Your task to perform on an android device: Open Reddit.com Image 0: 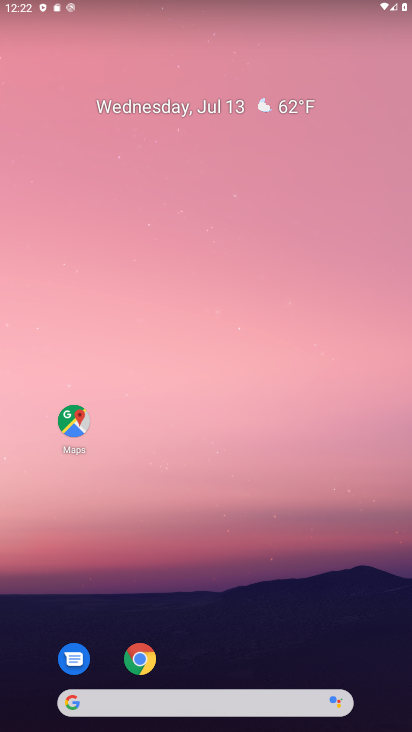
Step 0: drag from (216, 635) to (167, 90)
Your task to perform on an android device: Open Reddit.com Image 1: 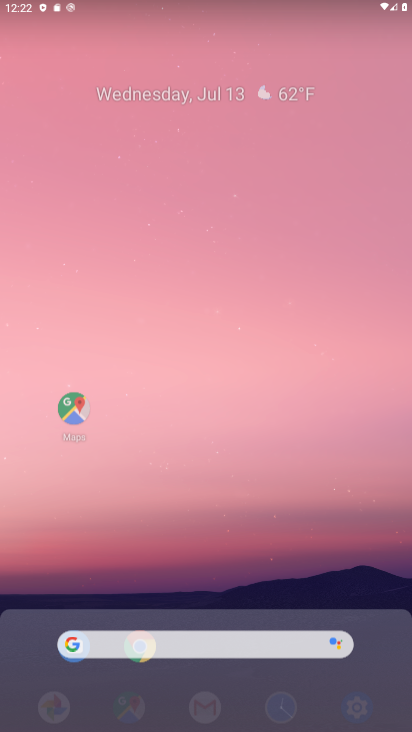
Step 1: drag from (302, 577) to (107, 214)
Your task to perform on an android device: Open Reddit.com Image 2: 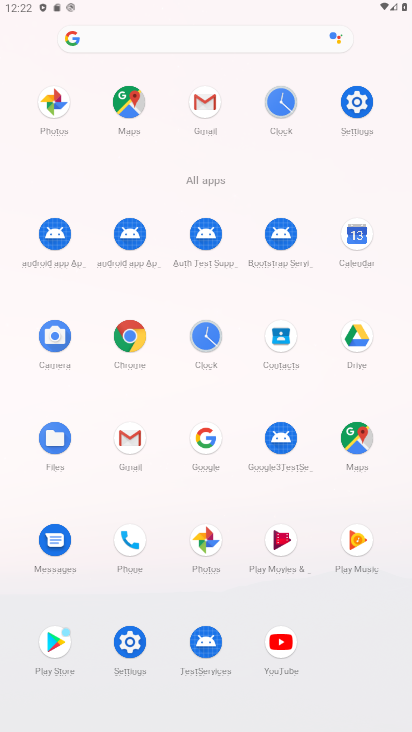
Step 2: click (138, 327)
Your task to perform on an android device: Open Reddit.com Image 3: 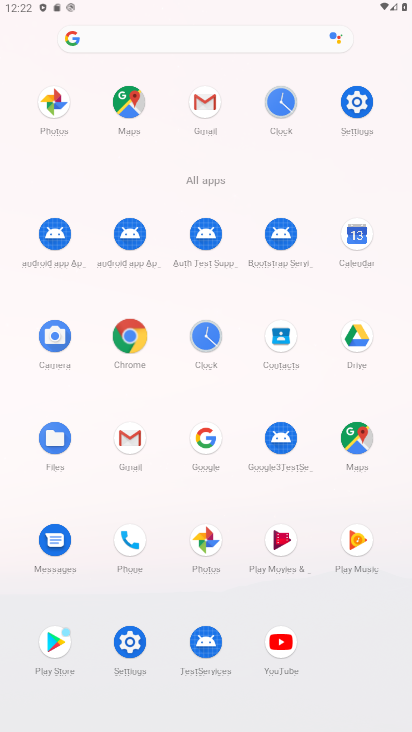
Step 3: click (134, 333)
Your task to perform on an android device: Open Reddit.com Image 4: 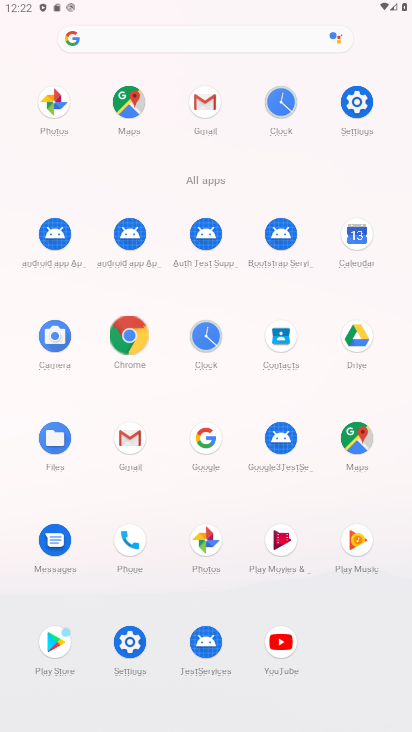
Step 4: click (132, 336)
Your task to perform on an android device: Open Reddit.com Image 5: 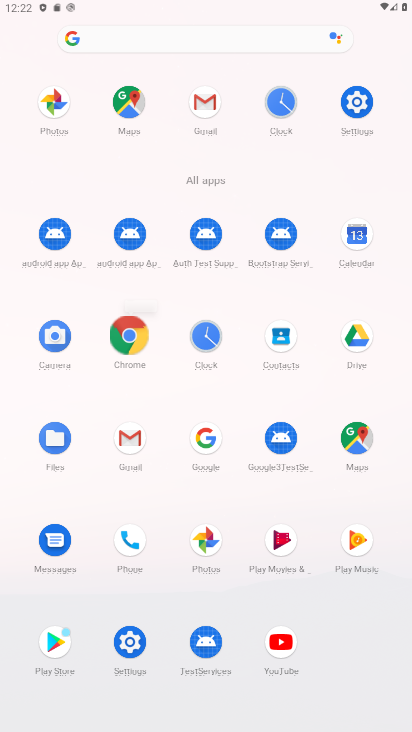
Step 5: click (131, 331)
Your task to perform on an android device: Open Reddit.com Image 6: 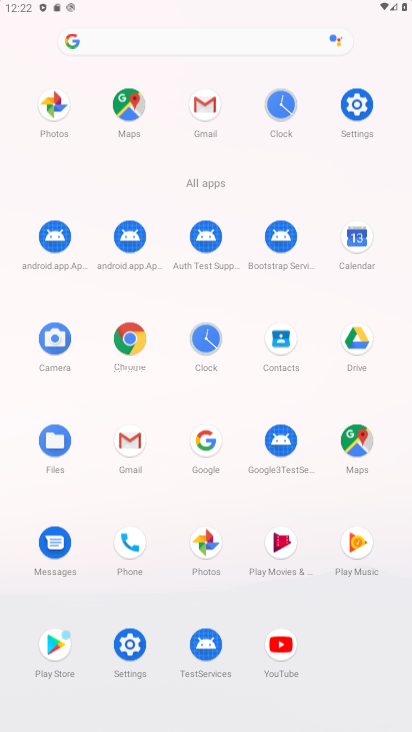
Step 6: click (130, 317)
Your task to perform on an android device: Open Reddit.com Image 7: 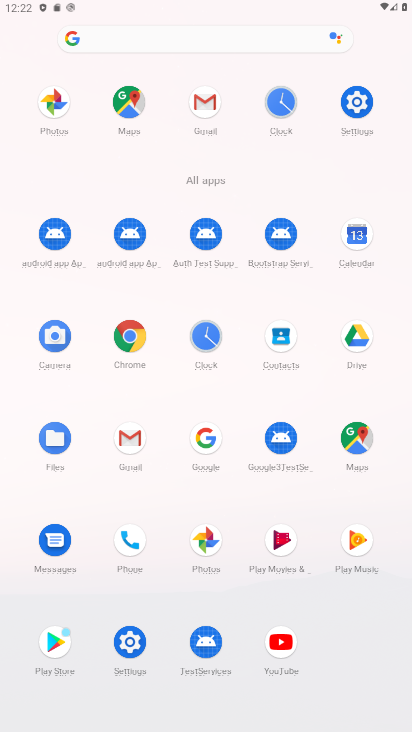
Step 7: click (126, 316)
Your task to perform on an android device: Open Reddit.com Image 8: 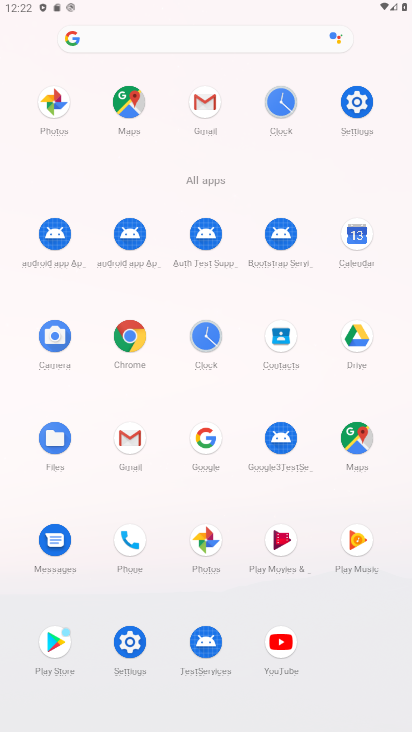
Step 8: click (129, 325)
Your task to perform on an android device: Open Reddit.com Image 9: 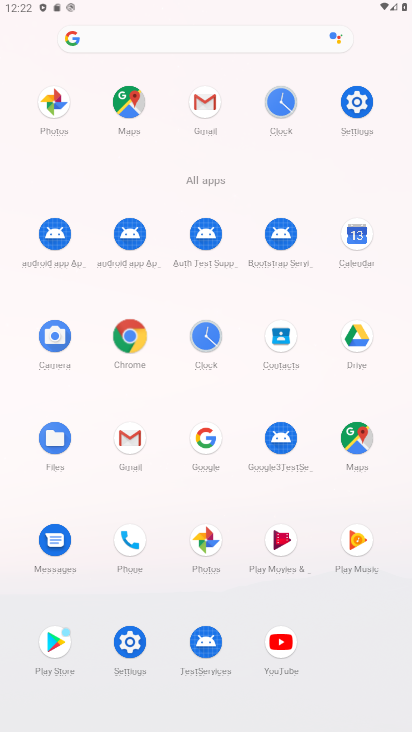
Step 9: click (131, 336)
Your task to perform on an android device: Open Reddit.com Image 10: 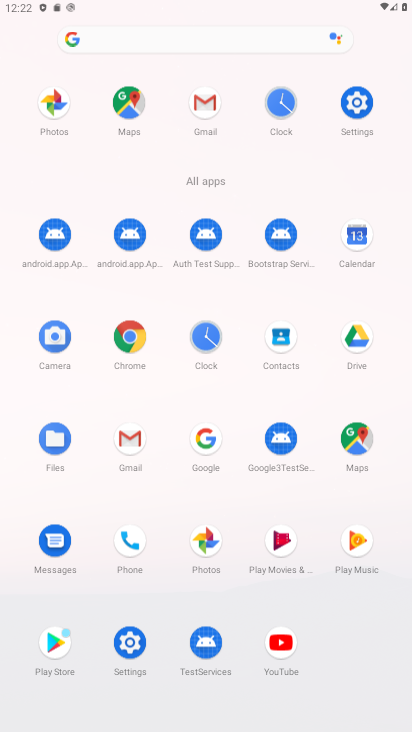
Step 10: click (135, 335)
Your task to perform on an android device: Open Reddit.com Image 11: 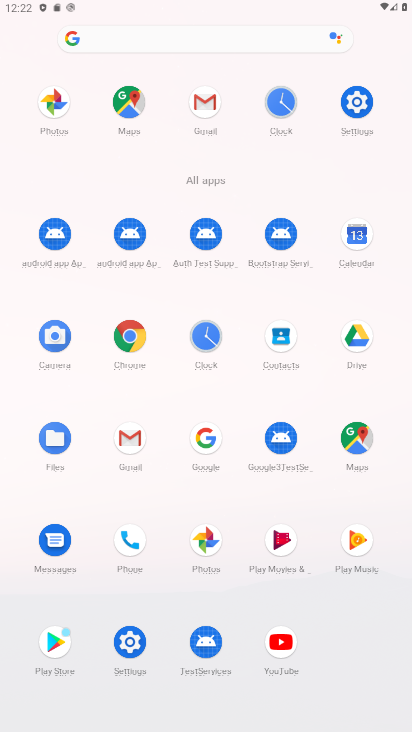
Step 11: click (123, 301)
Your task to perform on an android device: Open Reddit.com Image 12: 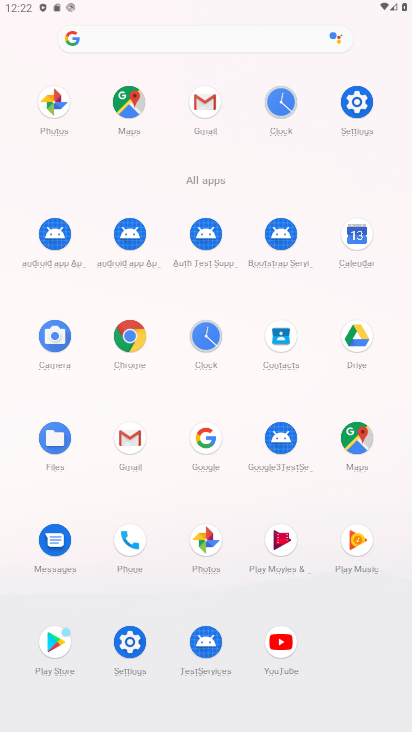
Step 12: click (127, 322)
Your task to perform on an android device: Open Reddit.com Image 13: 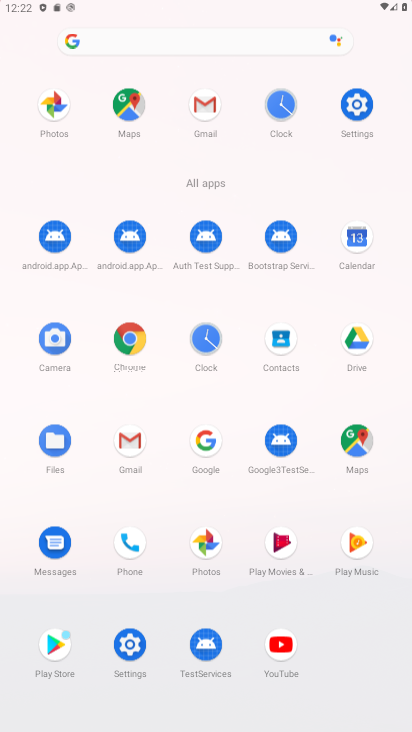
Step 13: click (134, 338)
Your task to perform on an android device: Open Reddit.com Image 14: 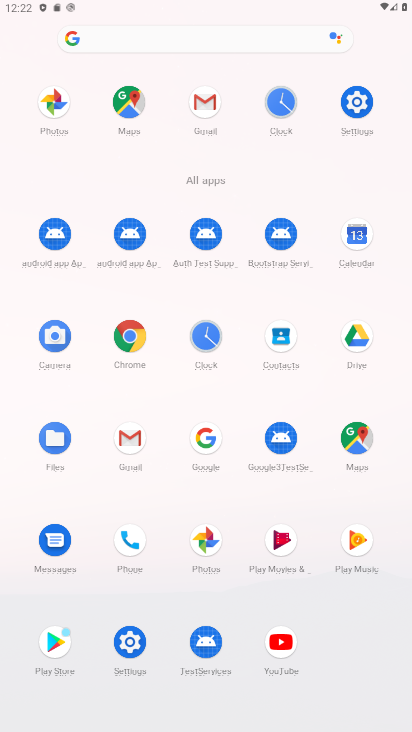
Step 14: click (123, 322)
Your task to perform on an android device: Open Reddit.com Image 15: 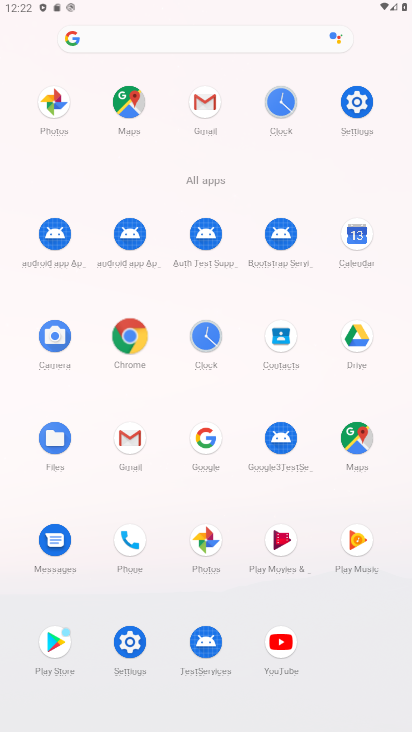
Step 15: click (124, 324)
Your task to perform on an android device: Open Reddit.com Image 16: 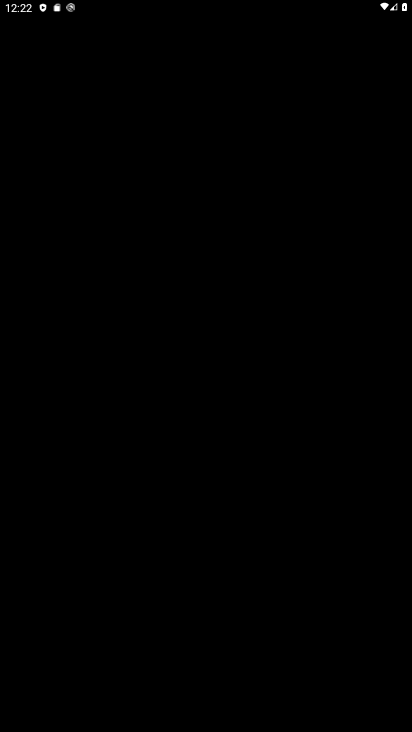
Step 16: click (134, 338)
Your task to perform on an android device: Open Reddit.com Image 17: 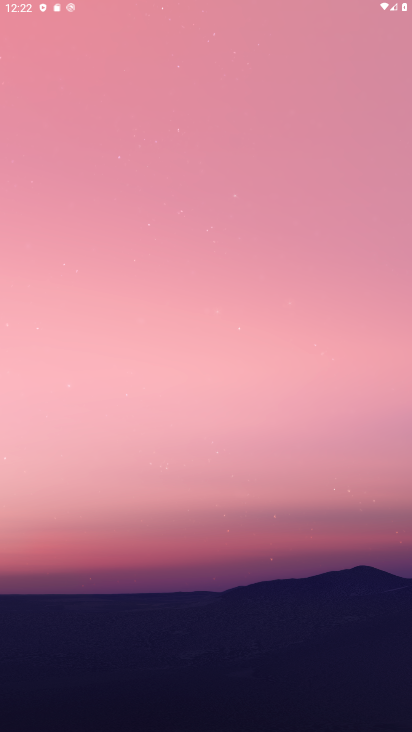
Step 17: click (138, 336)
Your task to perform on an android device: Open Reddit.com Image 18: 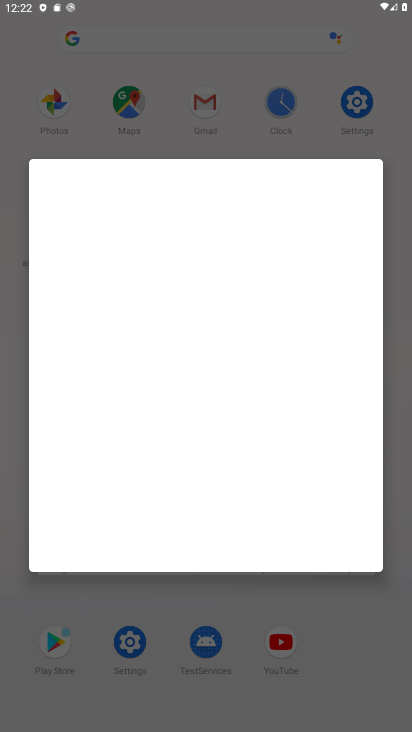
Step 18: click (219, 658)
Your task to perform on an android device: Open Reddit.com Image 19: 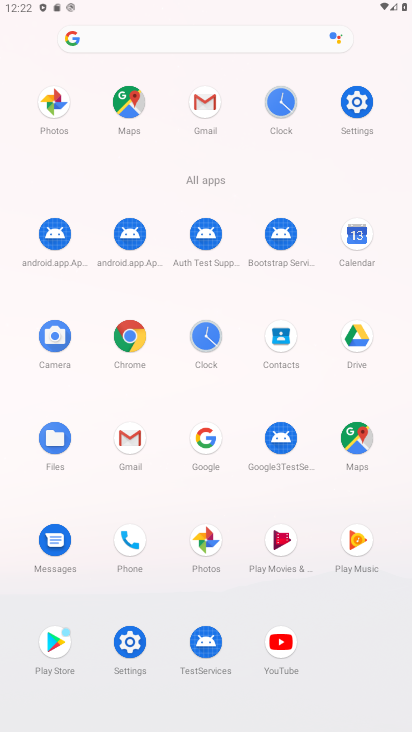
Step 19: click (127, 344)
Your task to perform on an android device: Open Reddit.com Image 20: 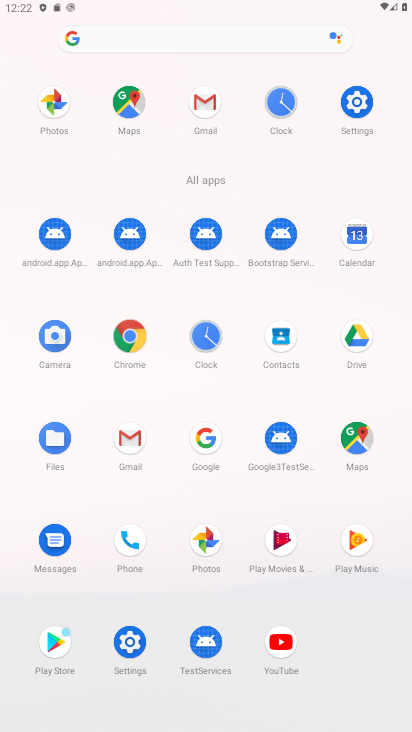
Step 20: click (127, 343)
Your task to perform on an android device: Open Reddit.com Image 21: 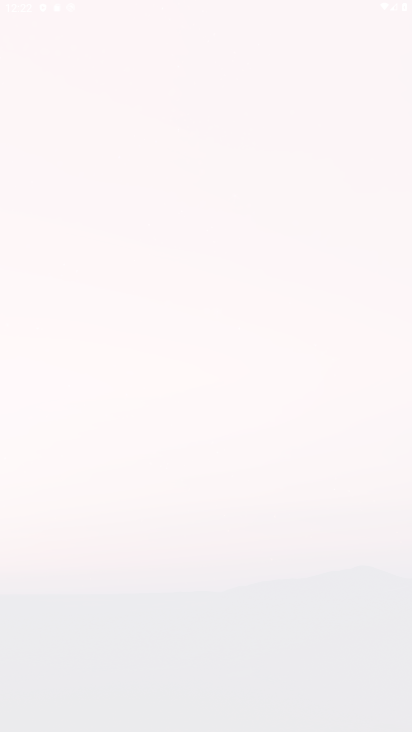
Step 21: click (127, 343)
Your task to perform on an android device: Open Reddit.com Image 22: 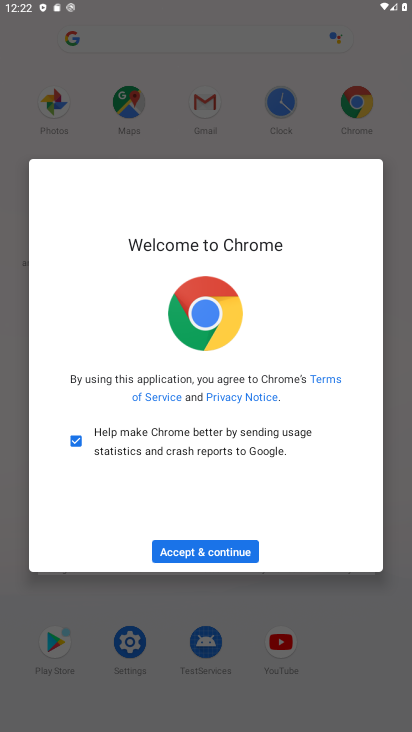
Step 22: click (188, 560)
Your task to perform on an android device: Open Reddit.com Image 23: 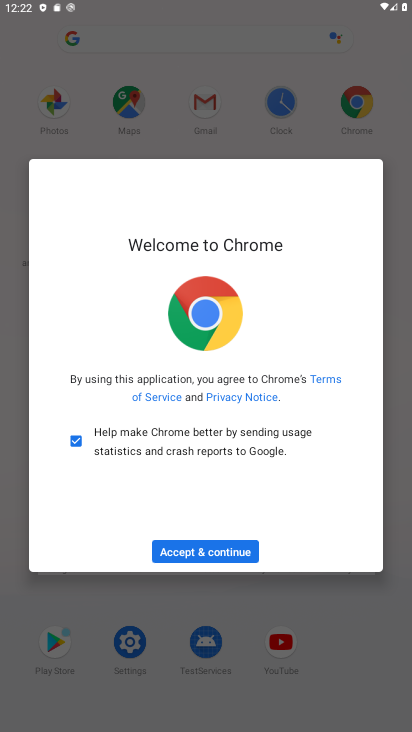
Step 23: click (197, 557)
Your task to perform on an android device: Open Reddit.com Image 24: 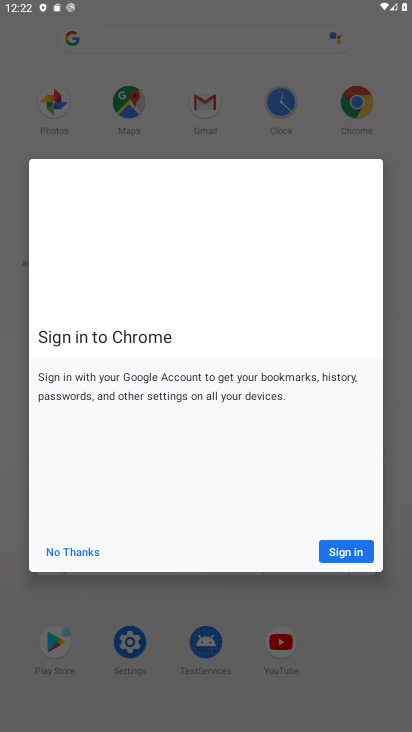
Step 24: click (201, 553)
Your task to perform on an android device: Open Reddit.com Image 25: 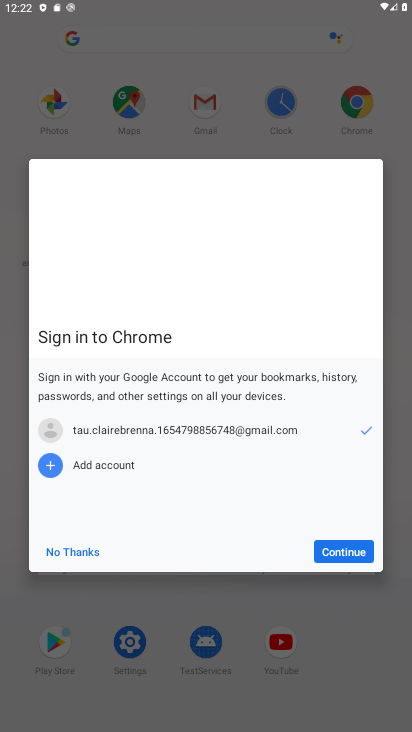
Step 25: click (204, 553)
Your task to perform on an android device: Open Reddit.com Image 26: 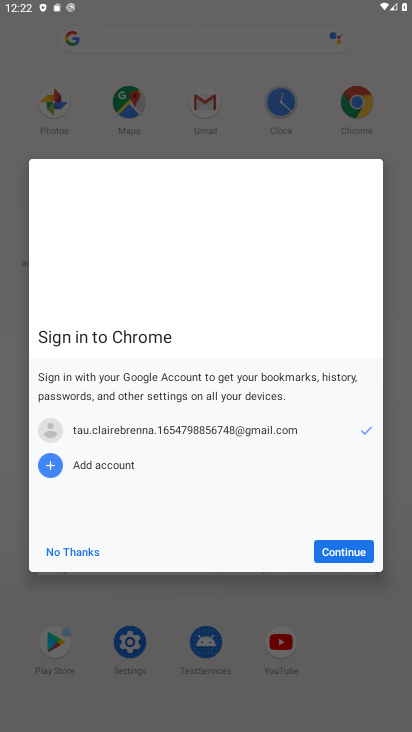
Step 26: click (365, 543)
Your task to perform on an android device: Open Reddit.com Image 27: 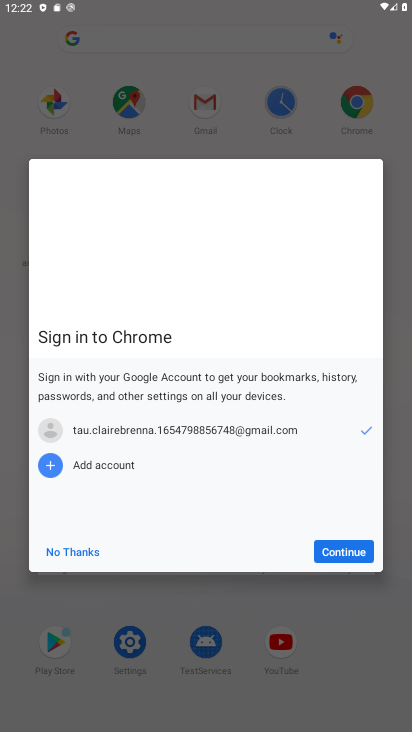
Step 27: click (365, 543)
Your task to perform on an android device: Open Reddit.com Image 28: 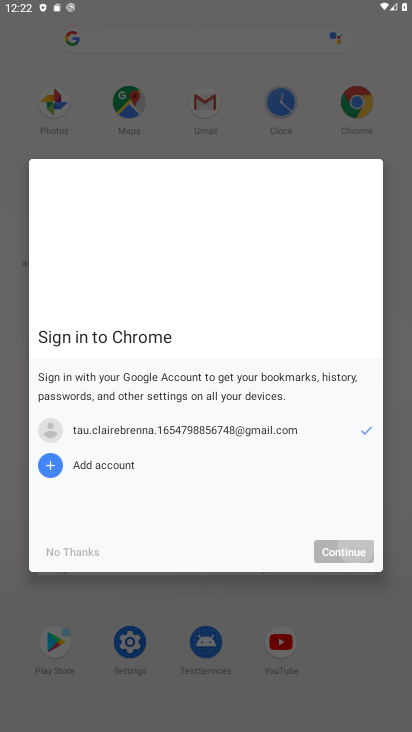
Step 28: click (365, 543)
Your task to perform on an android device: Open Reddit.com Image 29: 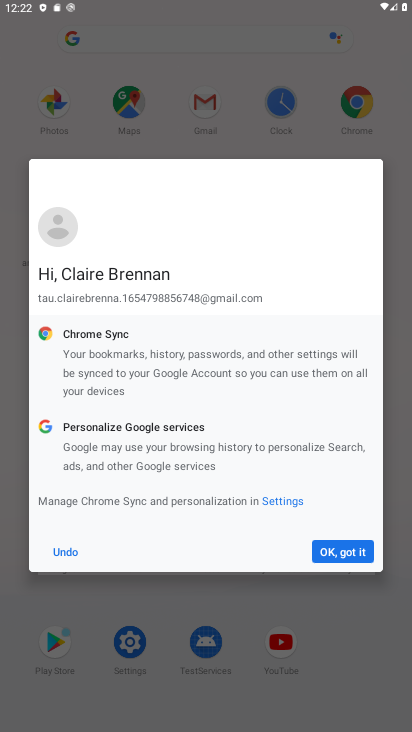
Step 29: click (365, 543)
Your task to perform on an android device: Open Reddit.com Image 30: 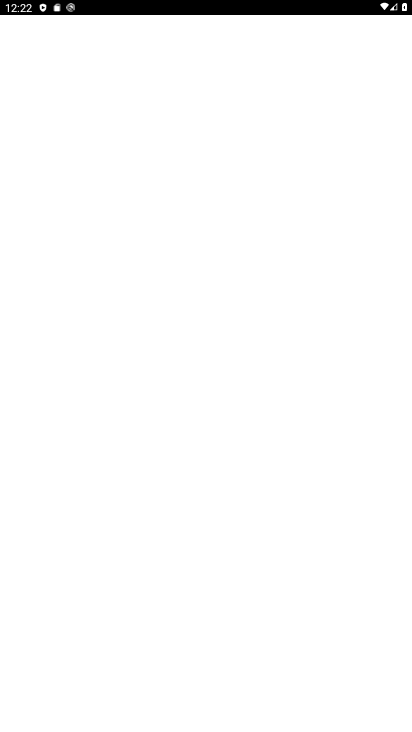
Step 30: click (337, 554)
Your task to perform on an android device: Open Reddit.com Image 31: 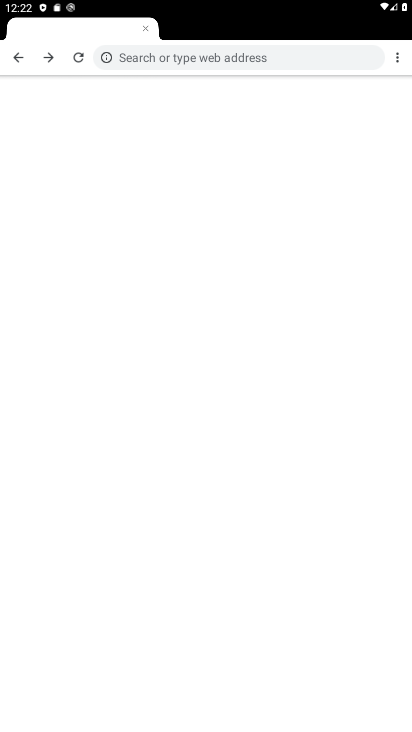
Step 31: click (337, 554)
Your task to perform on an android device: Open Reddit.com Image 32: 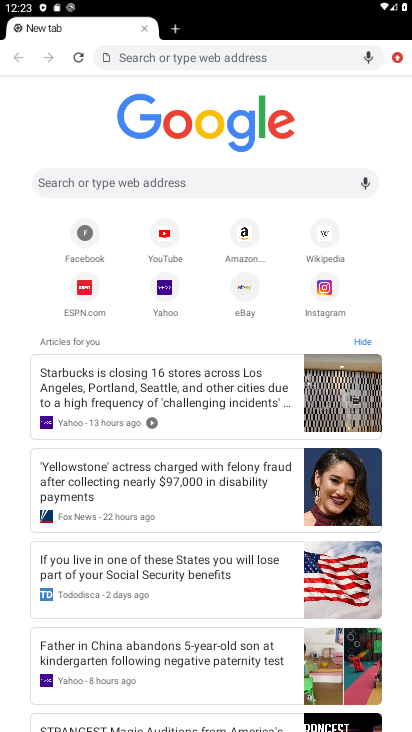
Step 32: click (100, 178)
Your task to perform on an android device: Open Reddit.com Image 33: 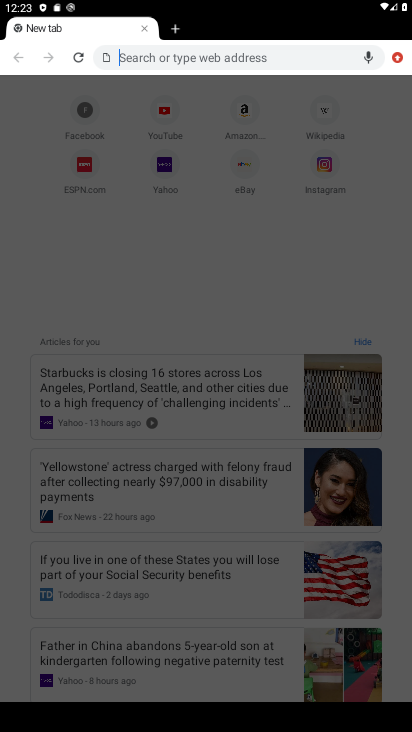
Step 33: type "www.reddit.com"
Your task to perform on an android device: Open Reddit.com Image 34: 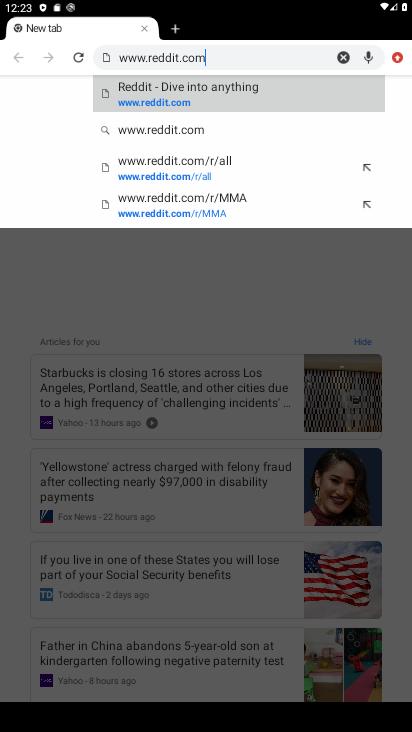
Step 34: click (166, 101)
Your task to perform on an android device: Open Reddit.com Image 35: 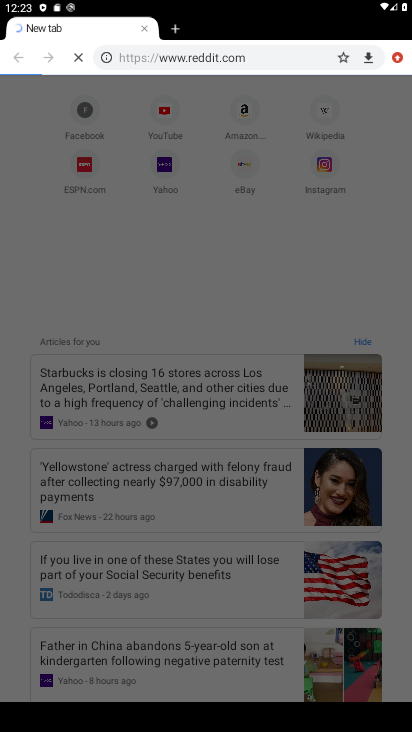
Step 35: click (163, 104)
Your task to perform on an android device: Open Reddit.com Image 36: 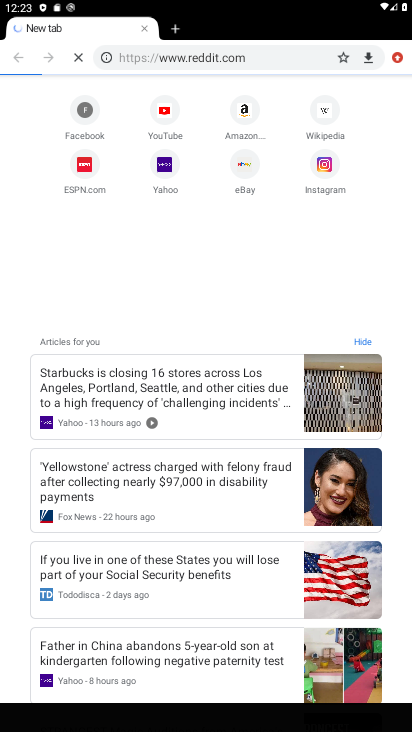
Step 36: click (163, 104)
Your task to perform on an android device: Open Reddit.com Image 37: 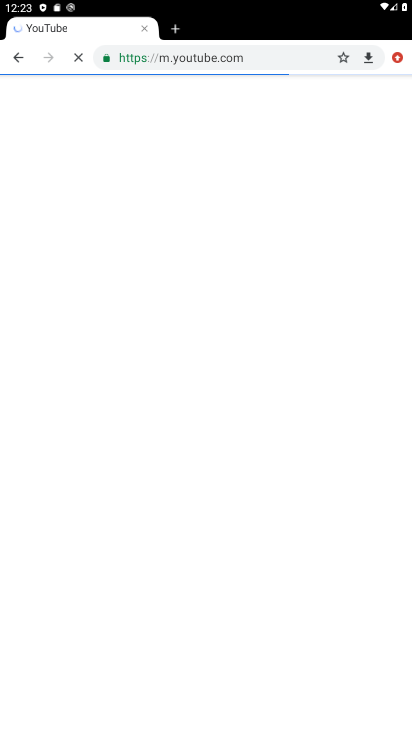
Step 37: task complete